Your task to perform on an android device: turn on wifi Image 0: 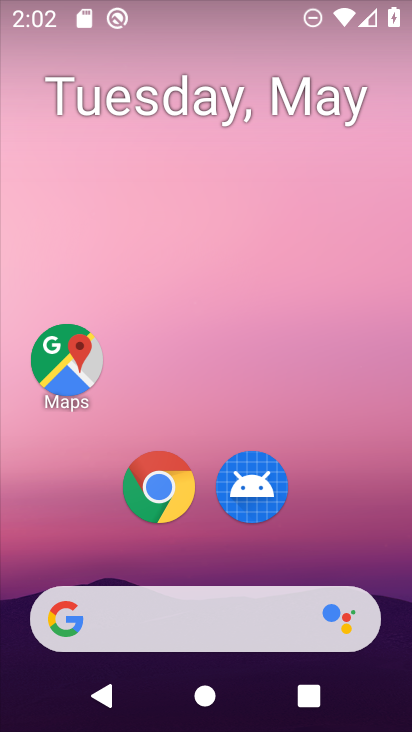
Step 0: drag from (196, 515) to (318, 0)
Your task to perform on an android device: turn on wifi Image 1: 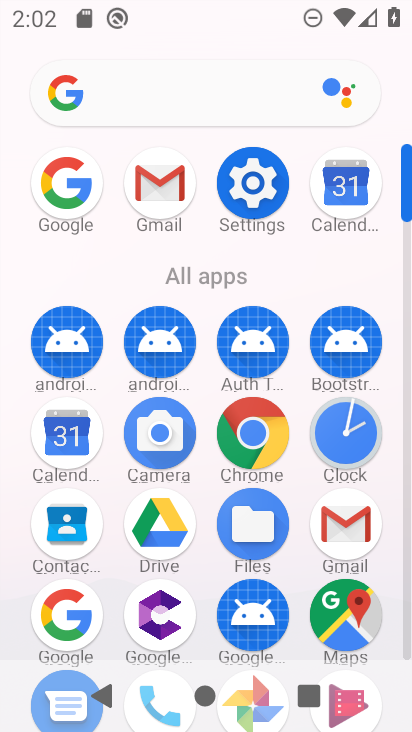
Step 1: click (248, 174)
Your task to perform on an android device: turn on wifi Image 2: 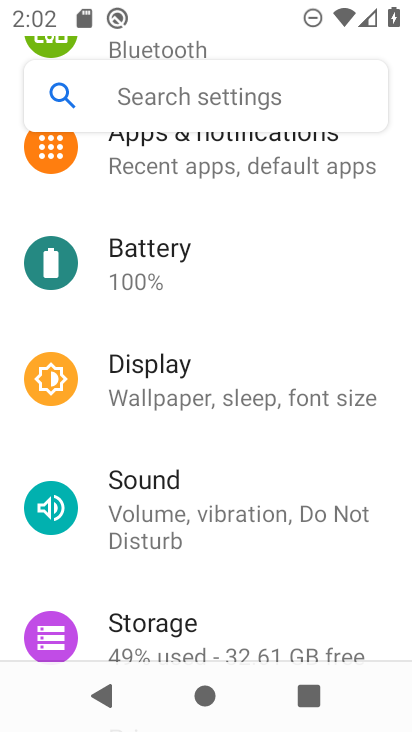
Step 2: drag from (248, 285) to (257, 731)
Your task to perform on an android device: turn on wifi Image 3: 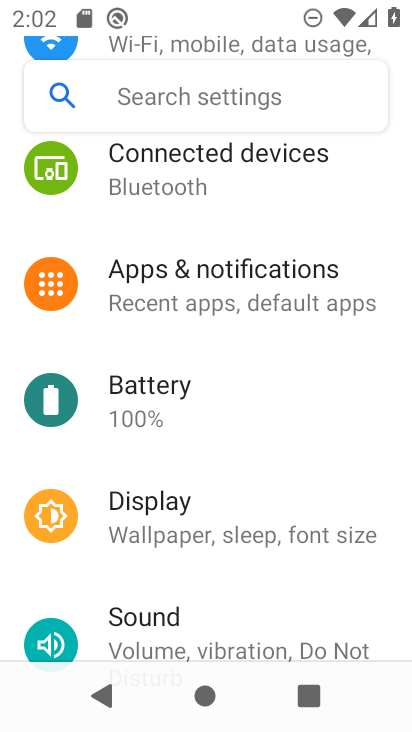
Step 3: drag from (267, 277) to (299, 667)
Your task to perform on an android device: turn on wifi Image 4: 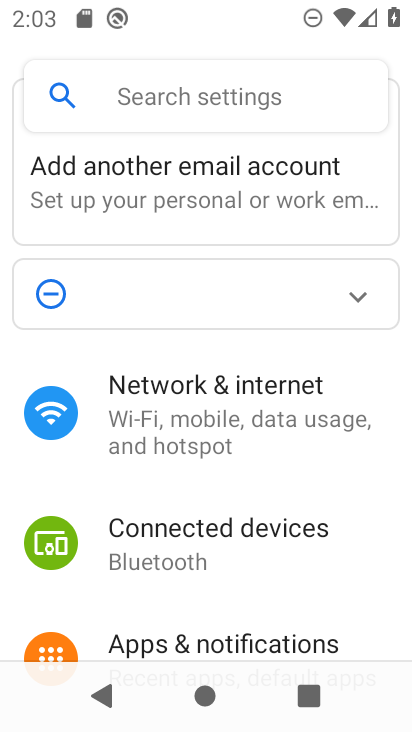
Step 4: click (191, 418)
Your task to perform on an android device: turn on wifi Image 5: 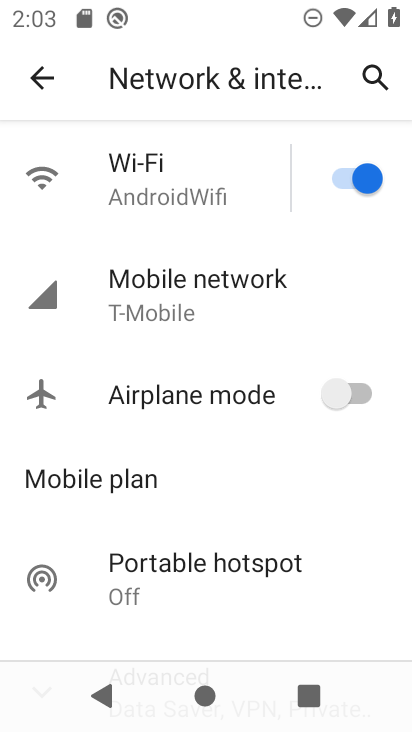
Step 5: task complete